Your task to perform on an android device: Go to privacy settings Image 0: 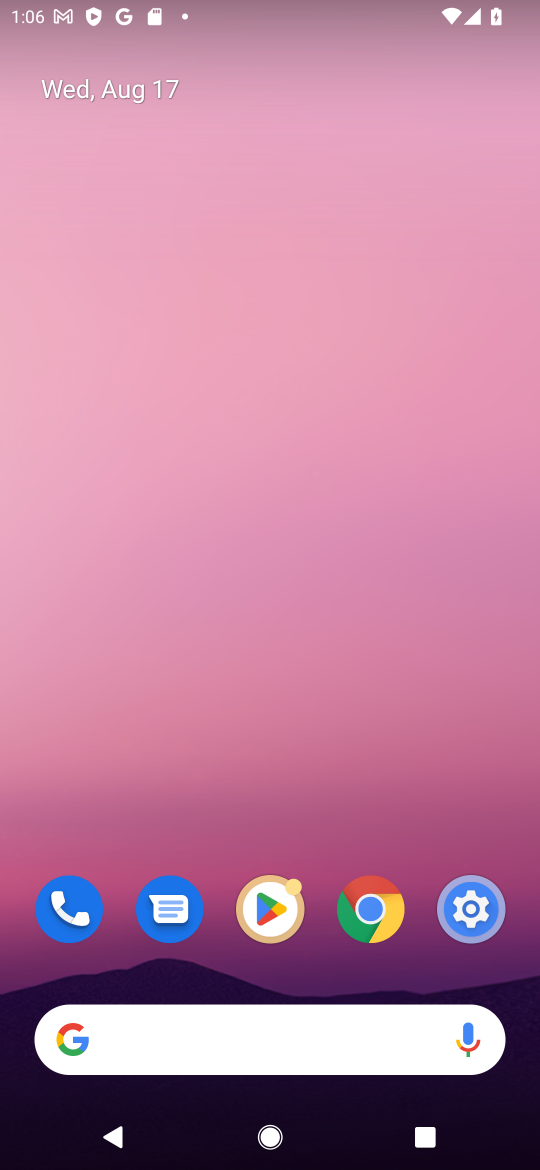
Step 0: drag from (250, 762) to (376, 163)
Your task to perform on an android device: Go to privacy settings Image 1: 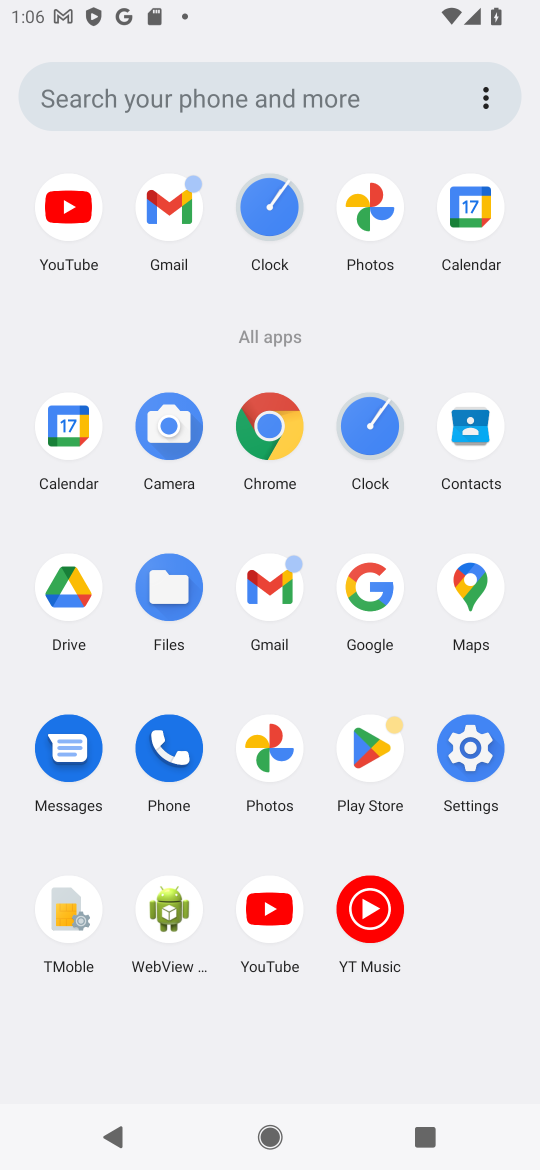
Step 1: click (465, 749)
Your task to perform on an android device: Go to privacy settings Image 2: 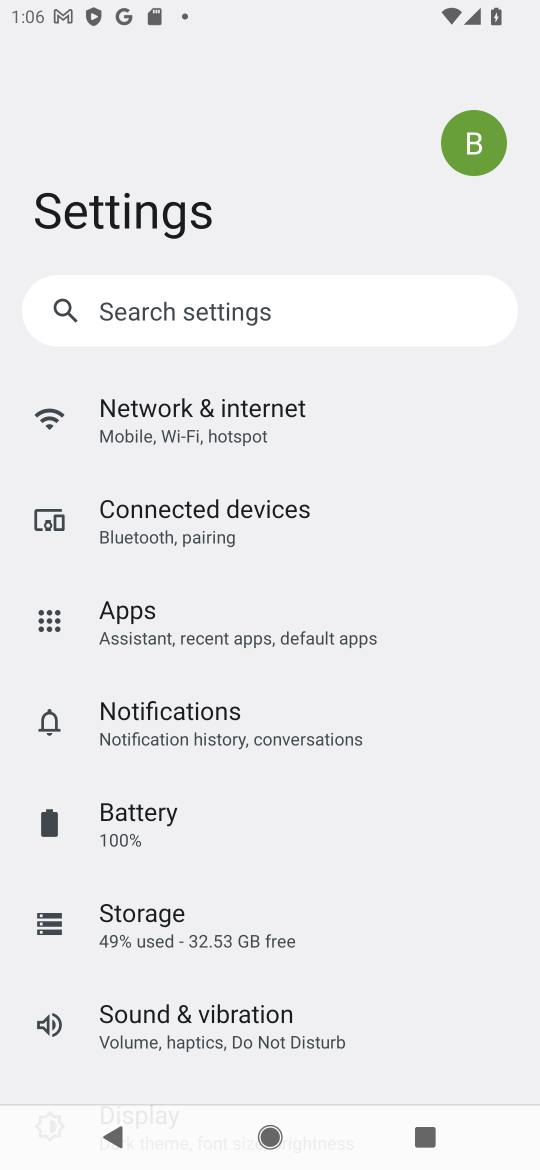
Step 2: task complete